Your task to perform on an android device: add a label to a message in the gmail app Image 0: 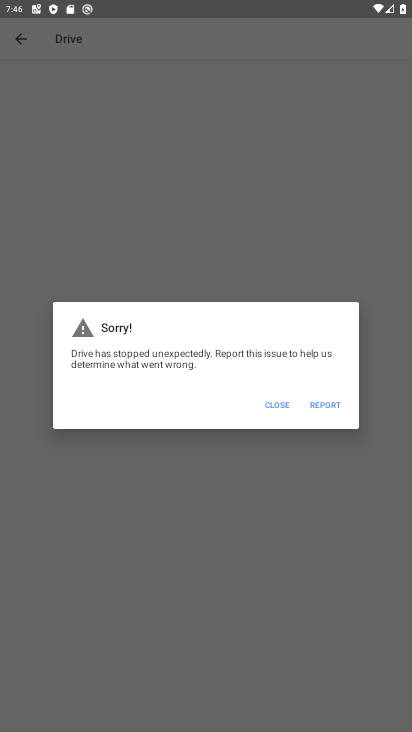
Step 0: press home button
Your task to perform on an android device: add a label to a message in the gmail app Image 1: 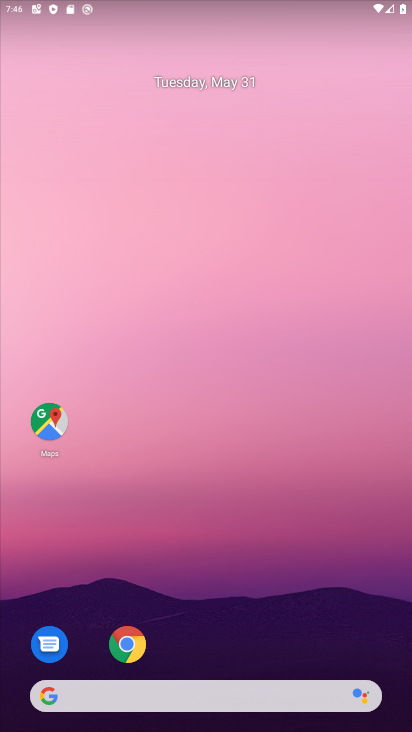
Step 1: drag from (163, 688) to (345, 2)
Your task to perform on an android device: add a label to a message in the gmail app Image 2: 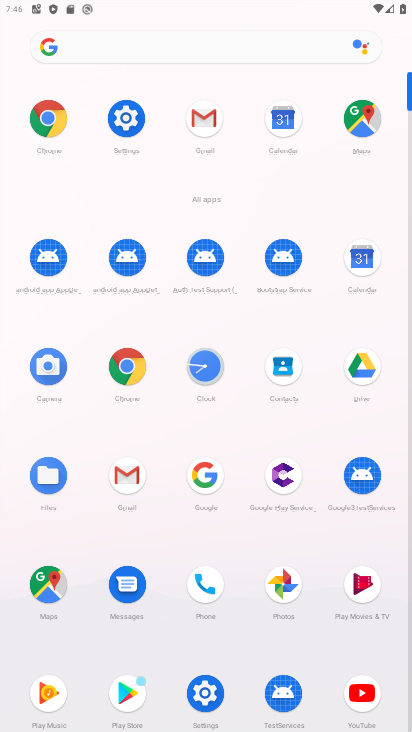
Step 2: click (199, 111)
Your task to perform on an android device: add a label to a message in the gmail app Image 3: 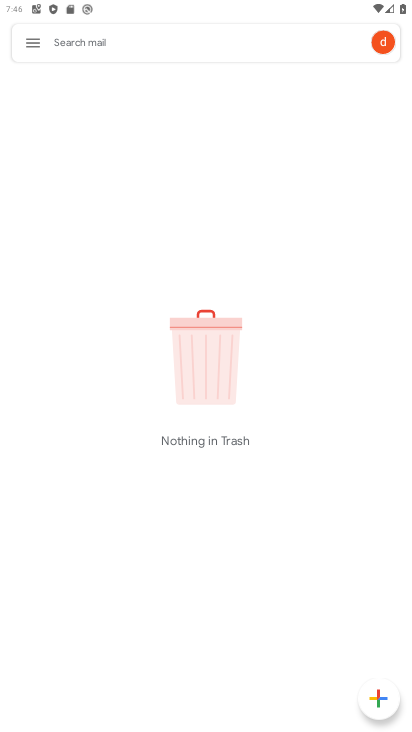
Step 3: click (125, 40)
Your task to perform on an android device: add a label to a message in the gmail app Image 4: 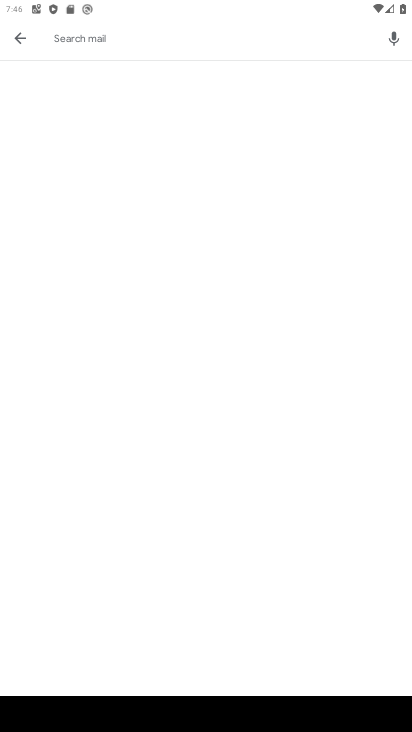
Step 4: click (16, 41)
Your task to perform on an android device: add a label to a message in the gmail app Image 5: 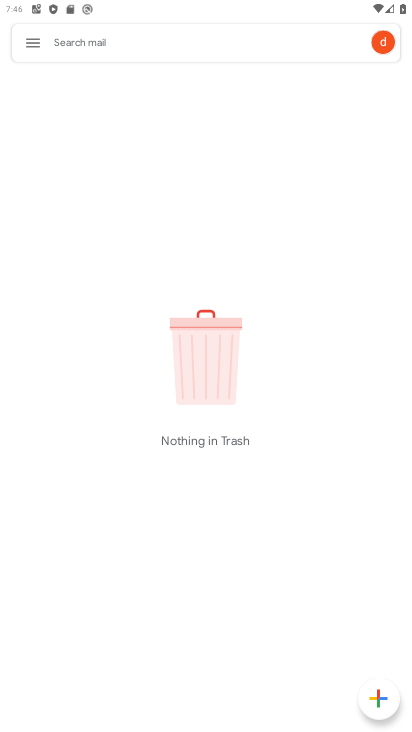
Step 5: click (31, 45)
Your task to perform on an android device: add a label to a message in the gmail app Image 6: 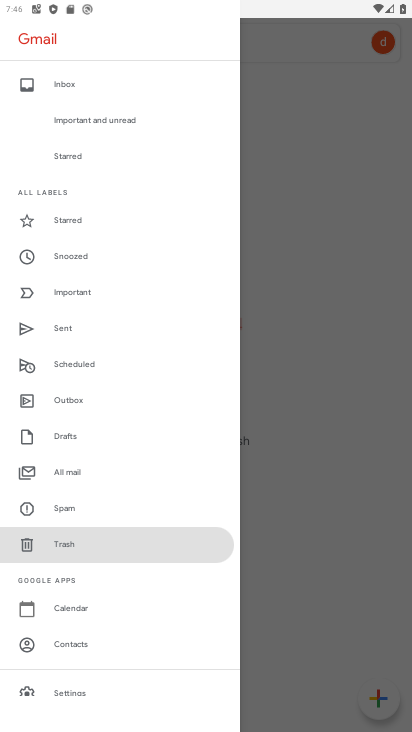
Step 6: drag from (148, 190) to (198, 712)
Your task to perform on an android device: add a label to a message in the gmail app Image 7: 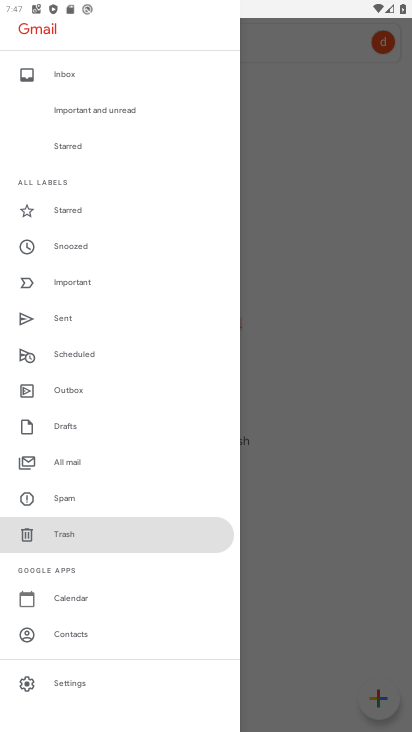
Step 7: drag from (170, 80) to (172, 634)
Your task to perform on an android device: add a label to a message in the gmail app Image 8: 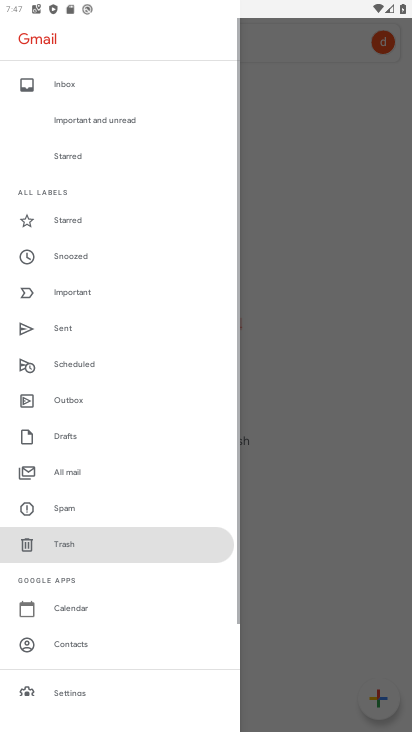
Step 8: click (94, 85)
Your task to perform on an android device: add a label to a message in the gmail app Image 9: 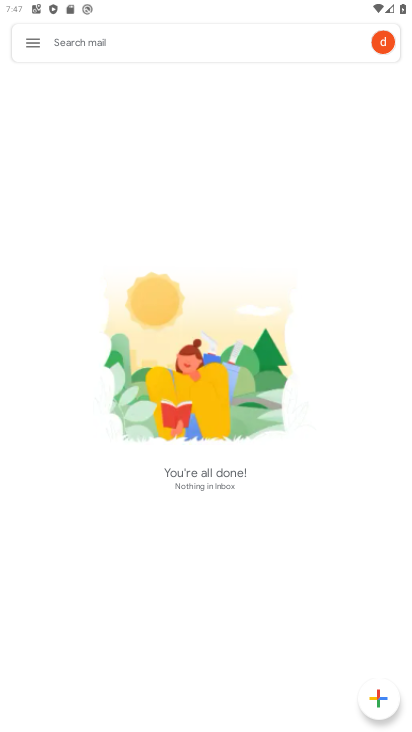
Step 9: task complete